Your task to perform on an android device: change notifications settings Image 0: 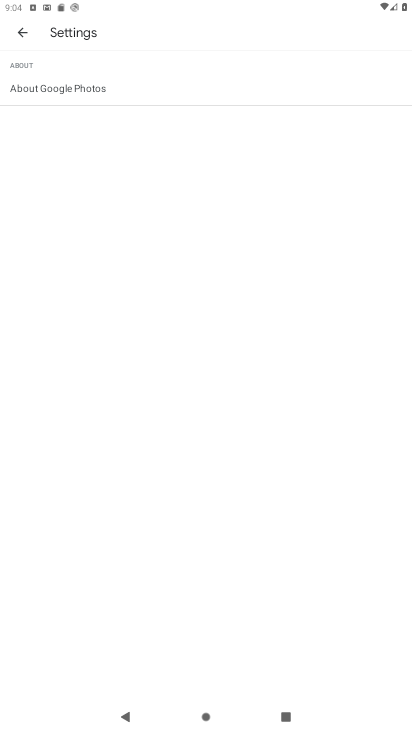
Step 0: press home button
Your task to perform on an android device: change notifications settings Image 1: 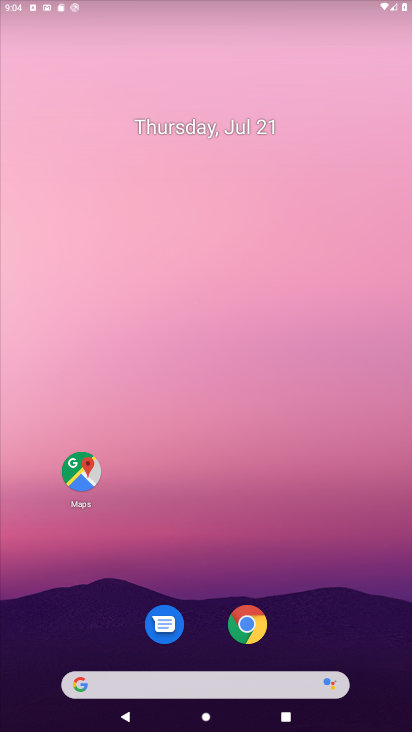
Step 1: drag from (13, 616) to (300, 127)
Your task to perform on an android device: change notifications settings Image 2: 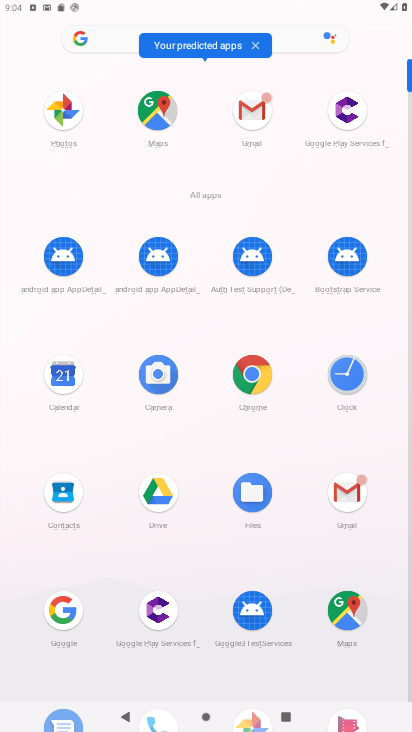
Step 2: drag from (11, 695) to (303, 124)
Your task to perform on an android device: change notifications settings Image 3: 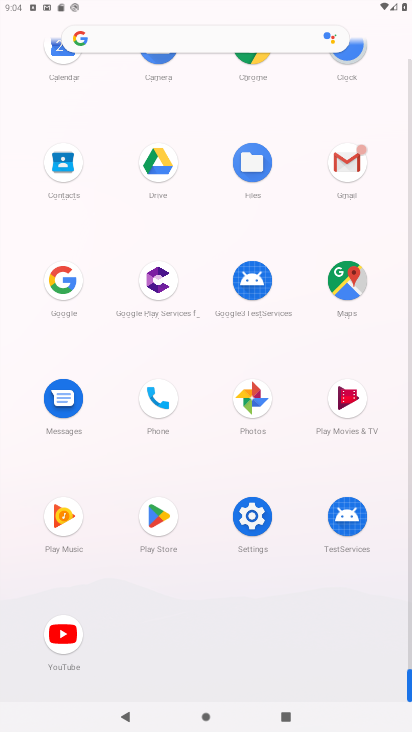
Step 3: click (248, 516)
Your task to perform on an android device: change notifications settings Image 4: 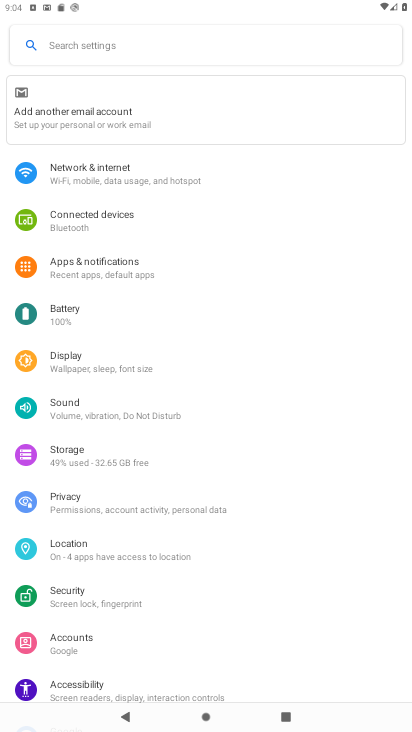
Step 4: click (169, 265)
Your task to perform on an android device: change notifications settings Image 5: 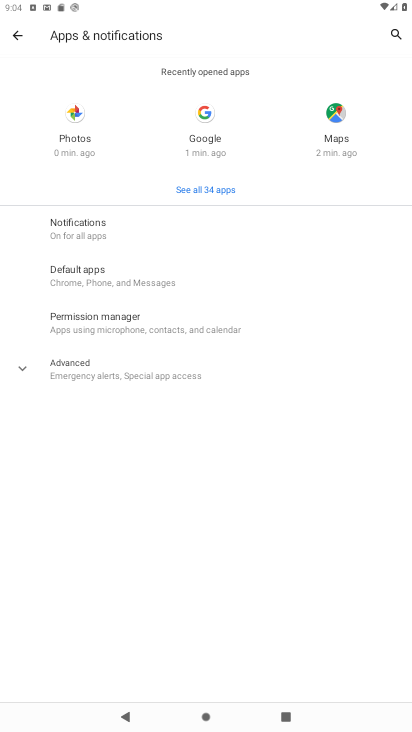
Step 5: click (158, 237)
Your task to perform on an android device: change notifications settings Image 6: 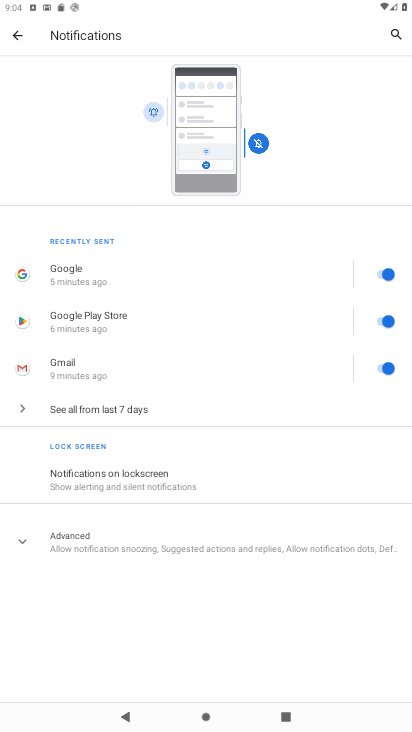
Step 6: click (386, 294)
Your task to perform on an android device: change notifications settings Image 7: 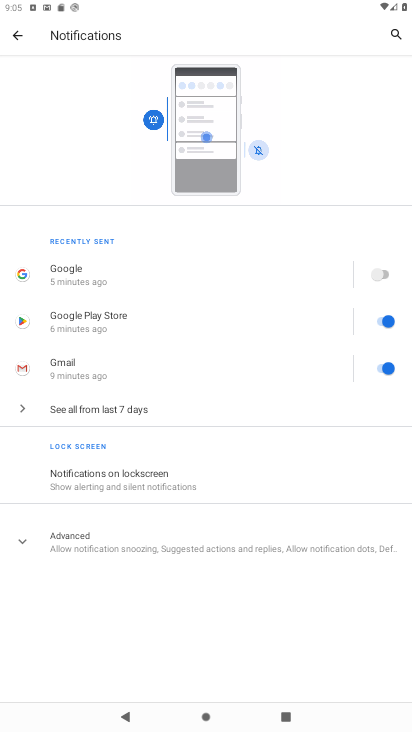
Step 7: task complete